Your task to perform on an android device: toggle translation in the chrome app Image 0: 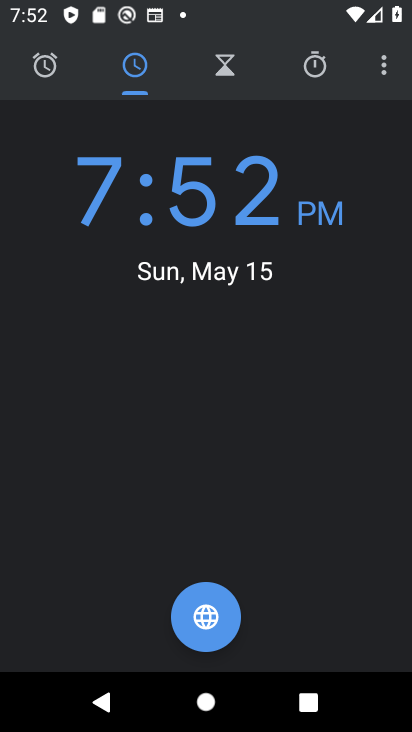
Step 0: press home button
Your task to perform on an android device: toggle translation in the chrome app Image 1: 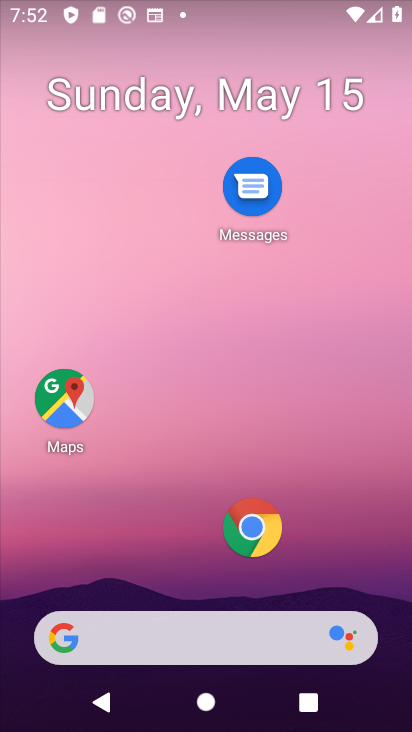
Step 1: click (250, 530)
Your task to perform on an android device: toggle translation in the chrome app Image 2: 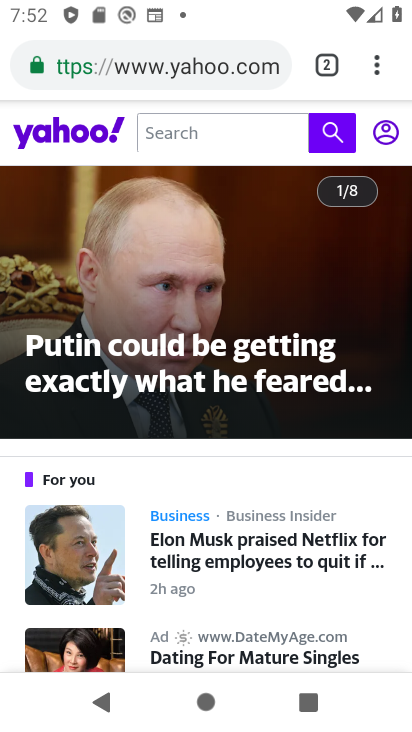
Step 2: drag from (378, 66) to (236, 572)
Your task to perform on an android device: toggle translation in the chrome app Image 3: 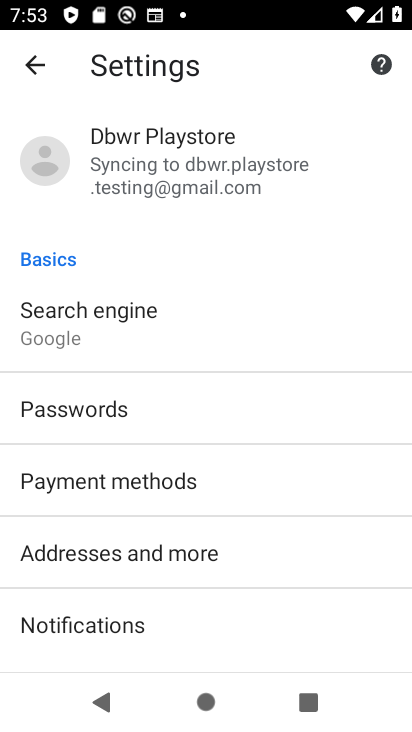
Step 3: drag from (197, 623) to (334, 122)
Your task to perform on an android device: toggle translation in the chrome app Image 4: 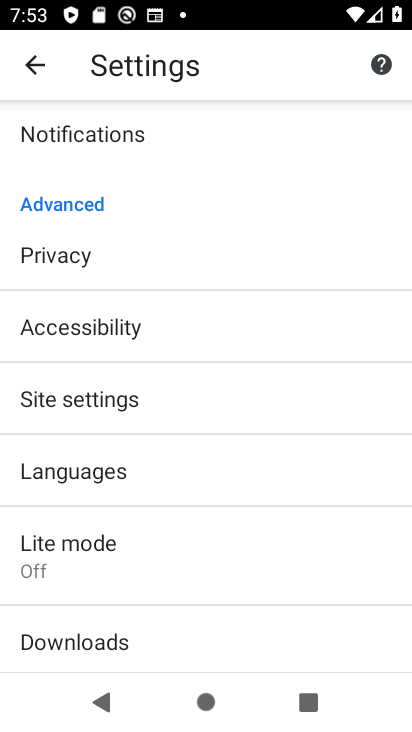
Step 4: click (101, 475)
Your task to perform on an android device: toggle translation in the chrome app Image 5: 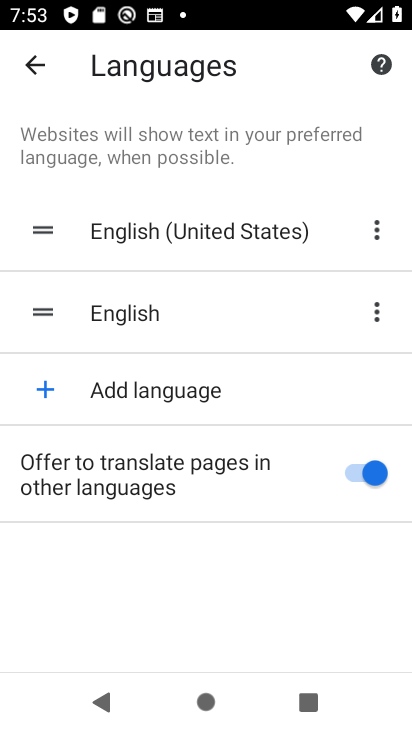
Step 5: click (349, 472)
Your task to perform on an android device: toggle translation in the chrome app Image 6: 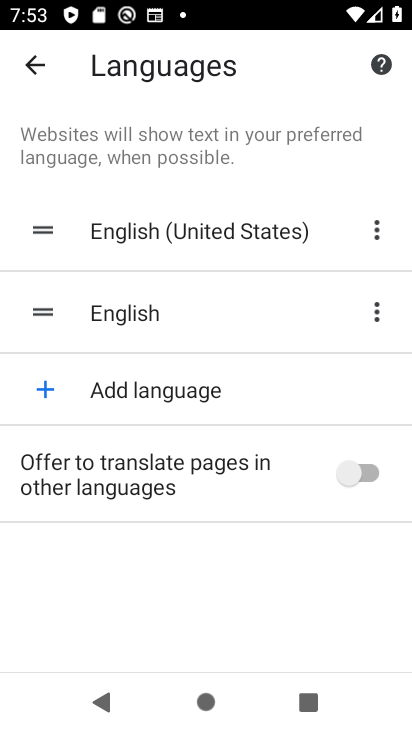
Step 6: task complete